Your task to perform on an android device: turn on showing notifications on the lock screen Image 0: 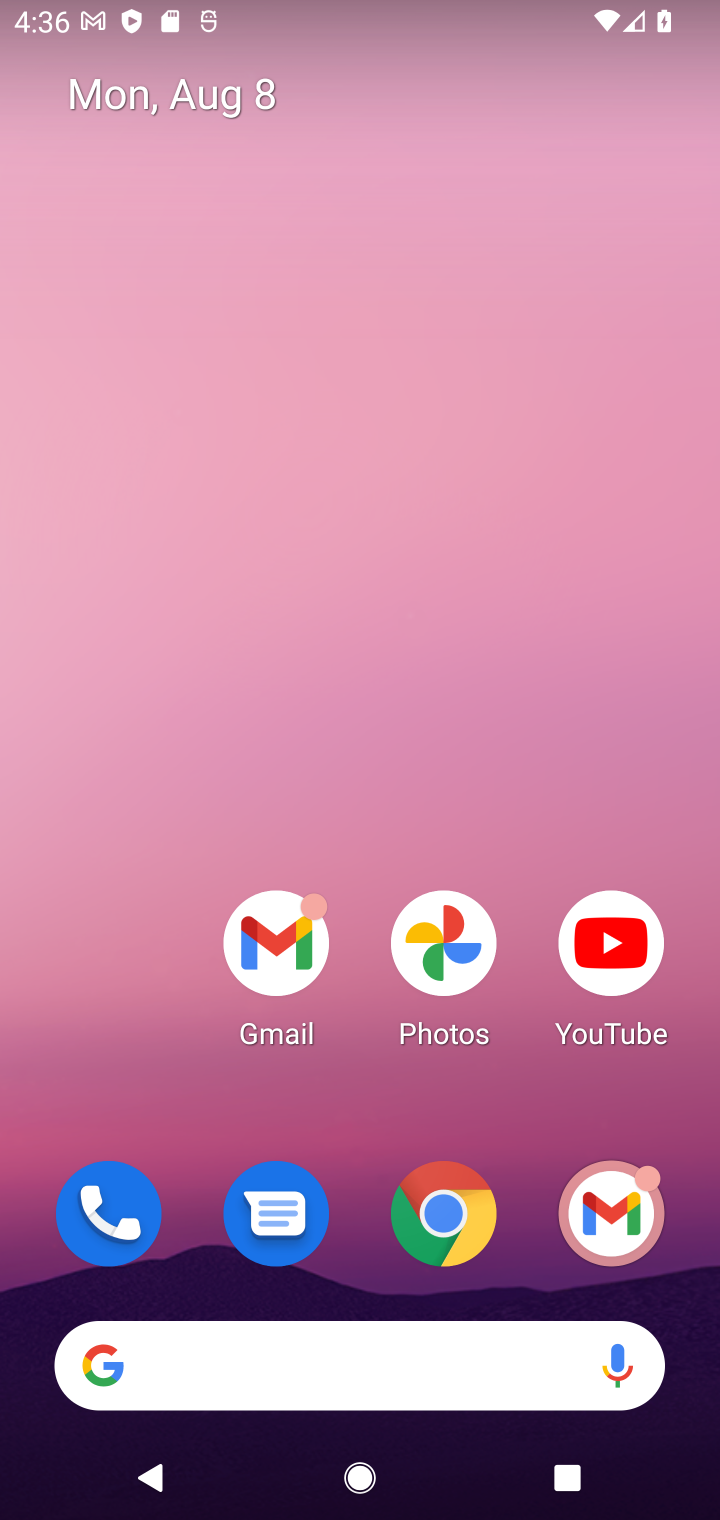
Step 0: drag from (381, 1108) to (357, 186)
Your task to perform on an android device: turn on showing notifications on the lock screen Image 1: 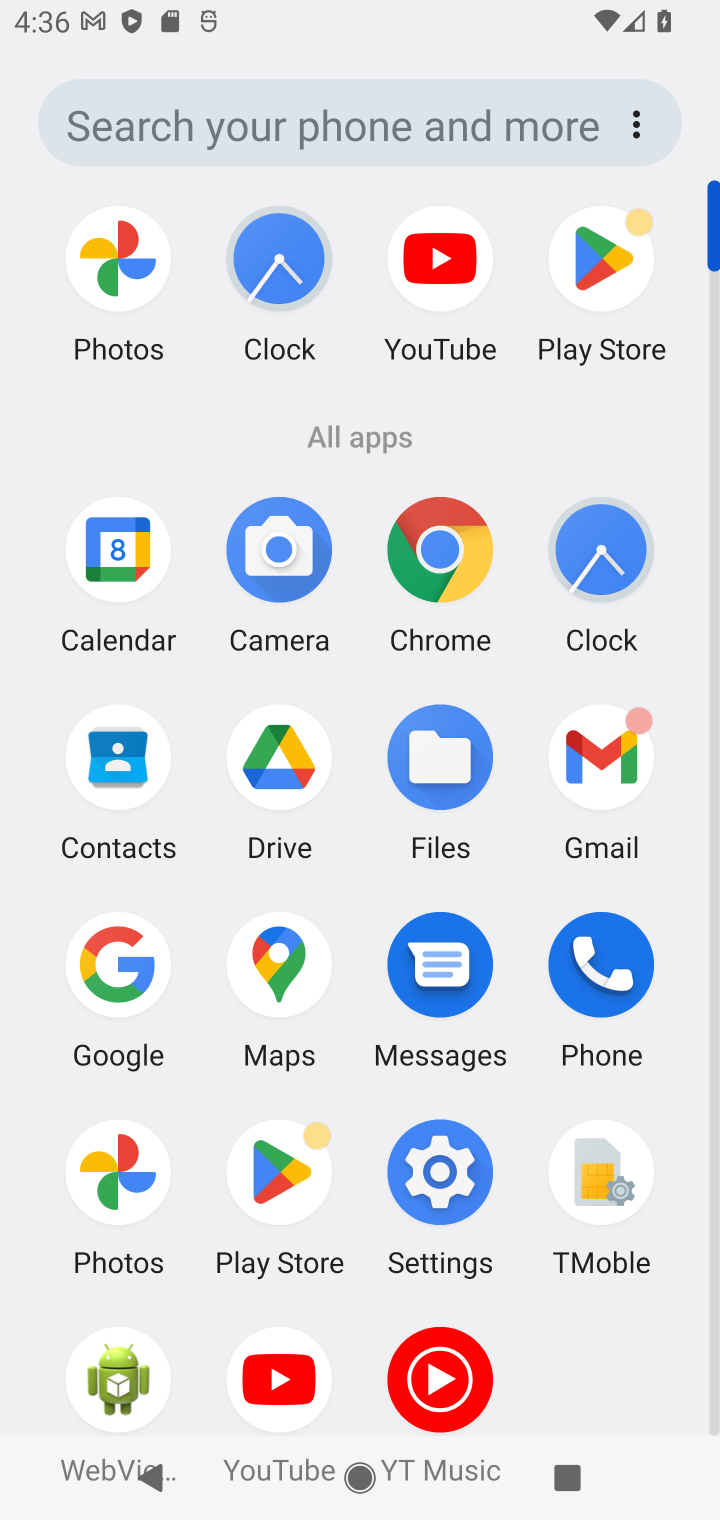
Step 1: click (438, 1171)
Your task to perform on an android device: turn on showing notifications on the lock screen Image 2: 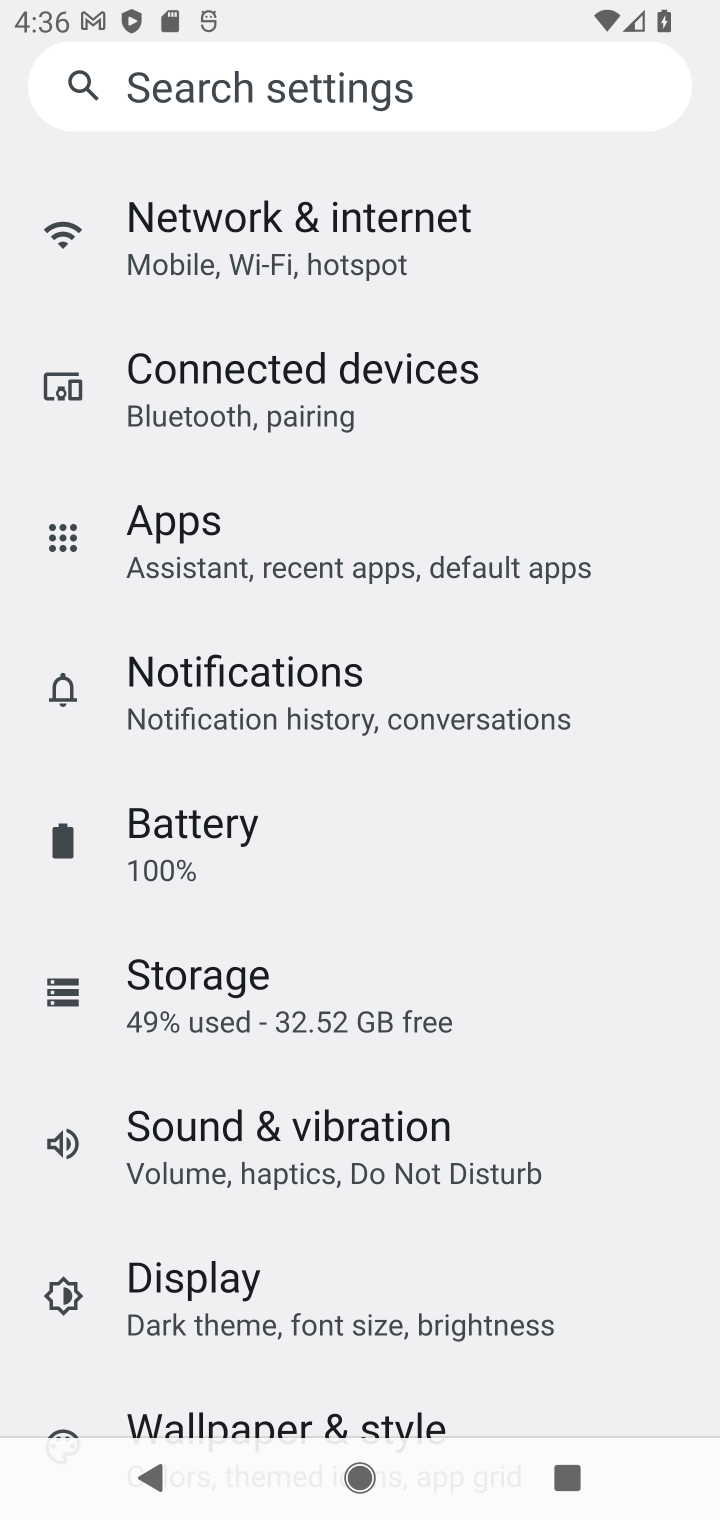
Step 2: click (391, 730)
Your task to perform on an android device: turn on showing notifications on the lock screen Image 3: 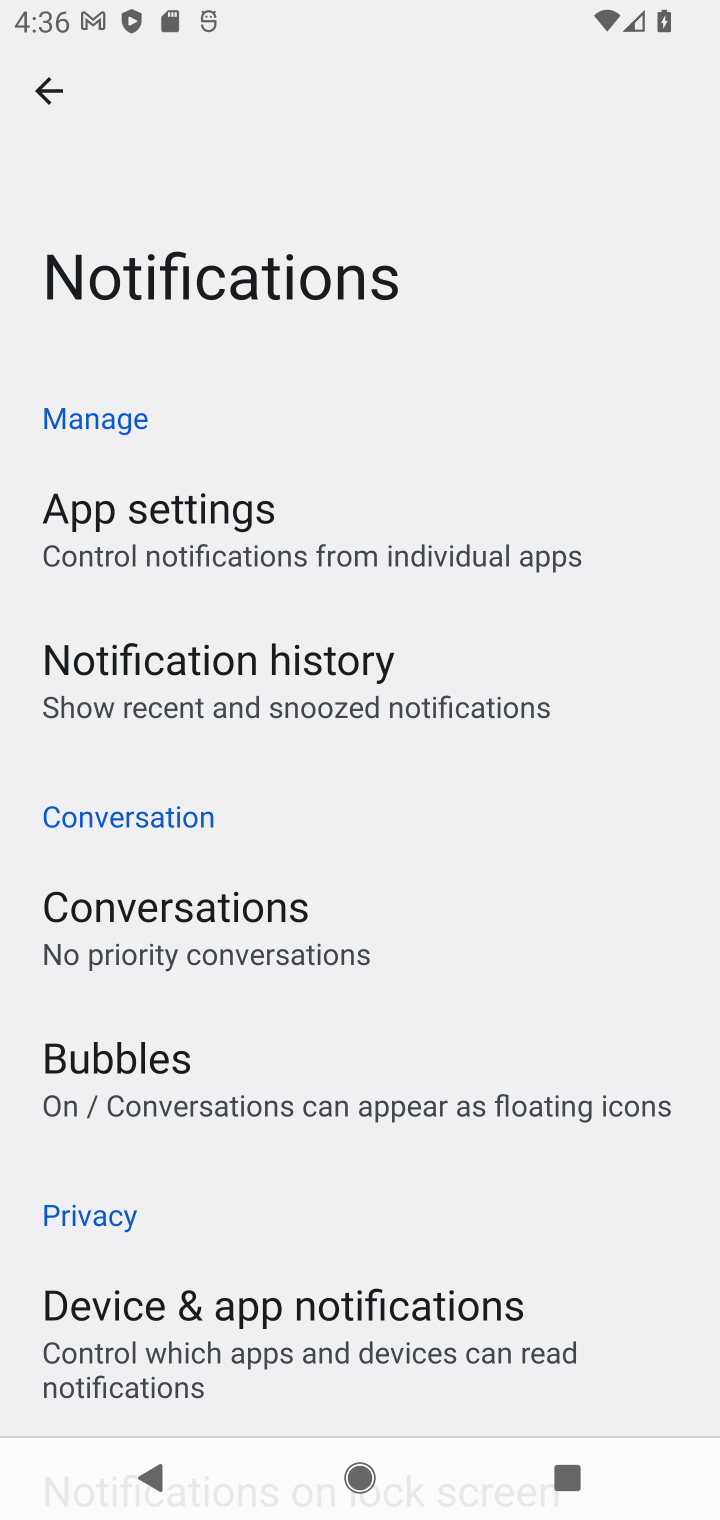
Step 3: drag from (334, 1157) to (224, 244)
Your task to perform on an android device: turn on showing notifications on the lock screen Image 4: 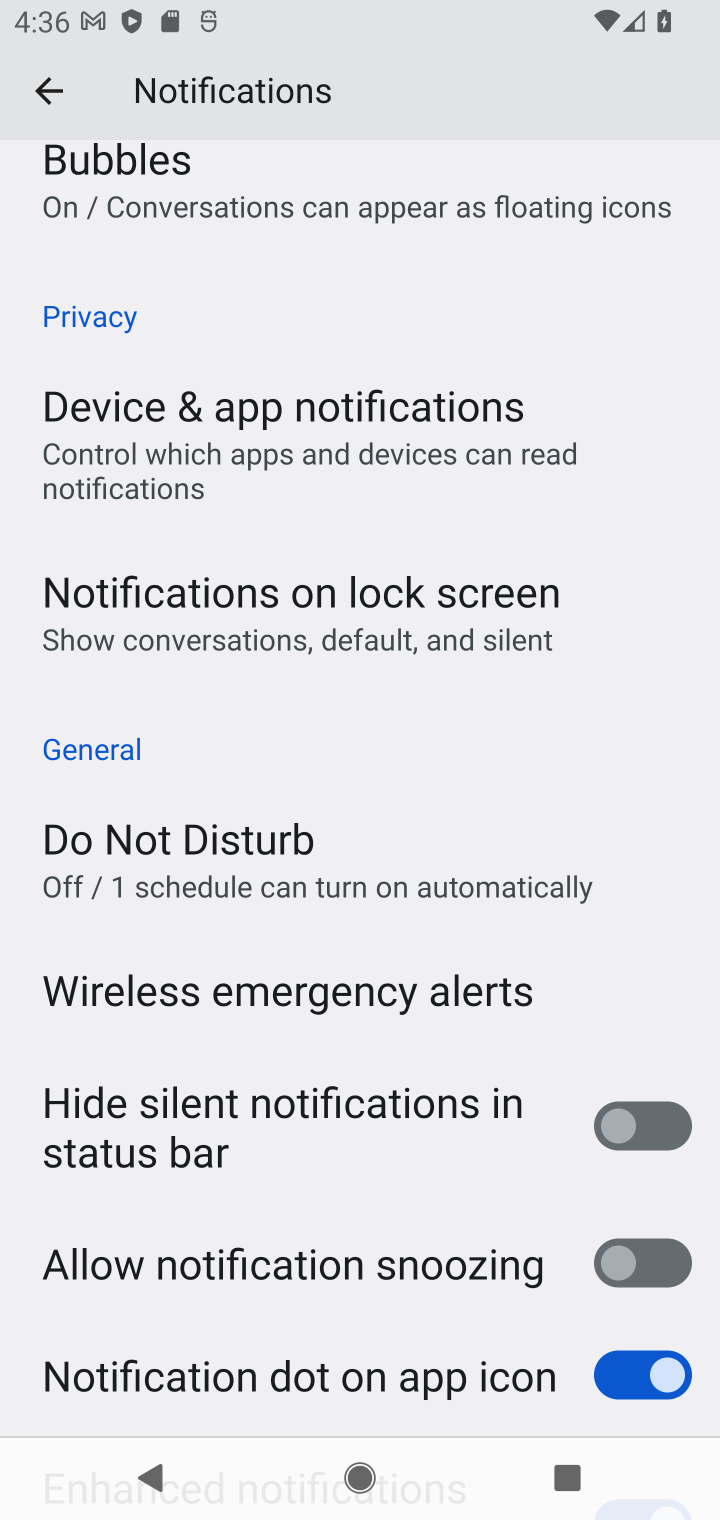
Step 4: click (170, 595)
Your task to perform on an android device: turn on showing notifications on the lock screen Image 5: 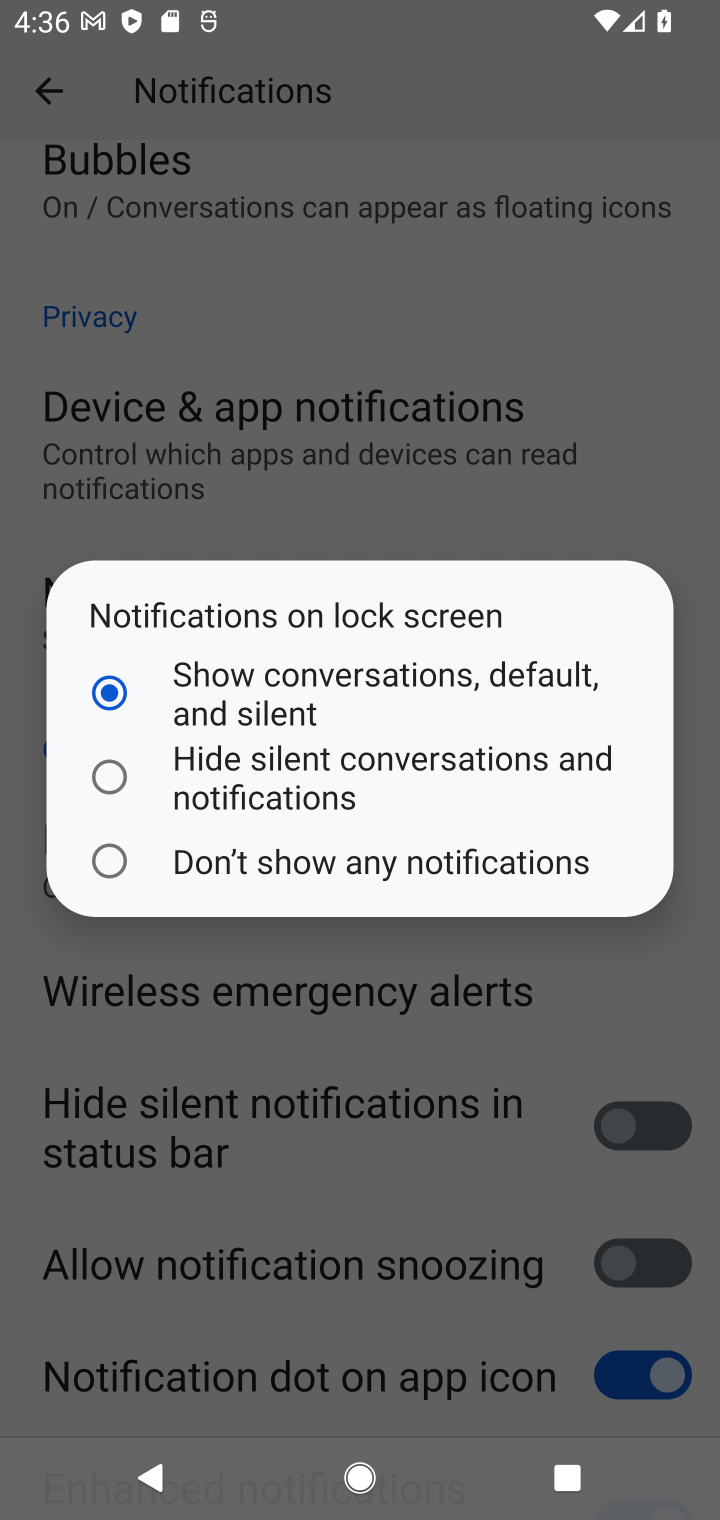
Step 5: click (227, 684)
Your task to perform on an android device: turn on showing notifications on the lock screen Image 6: 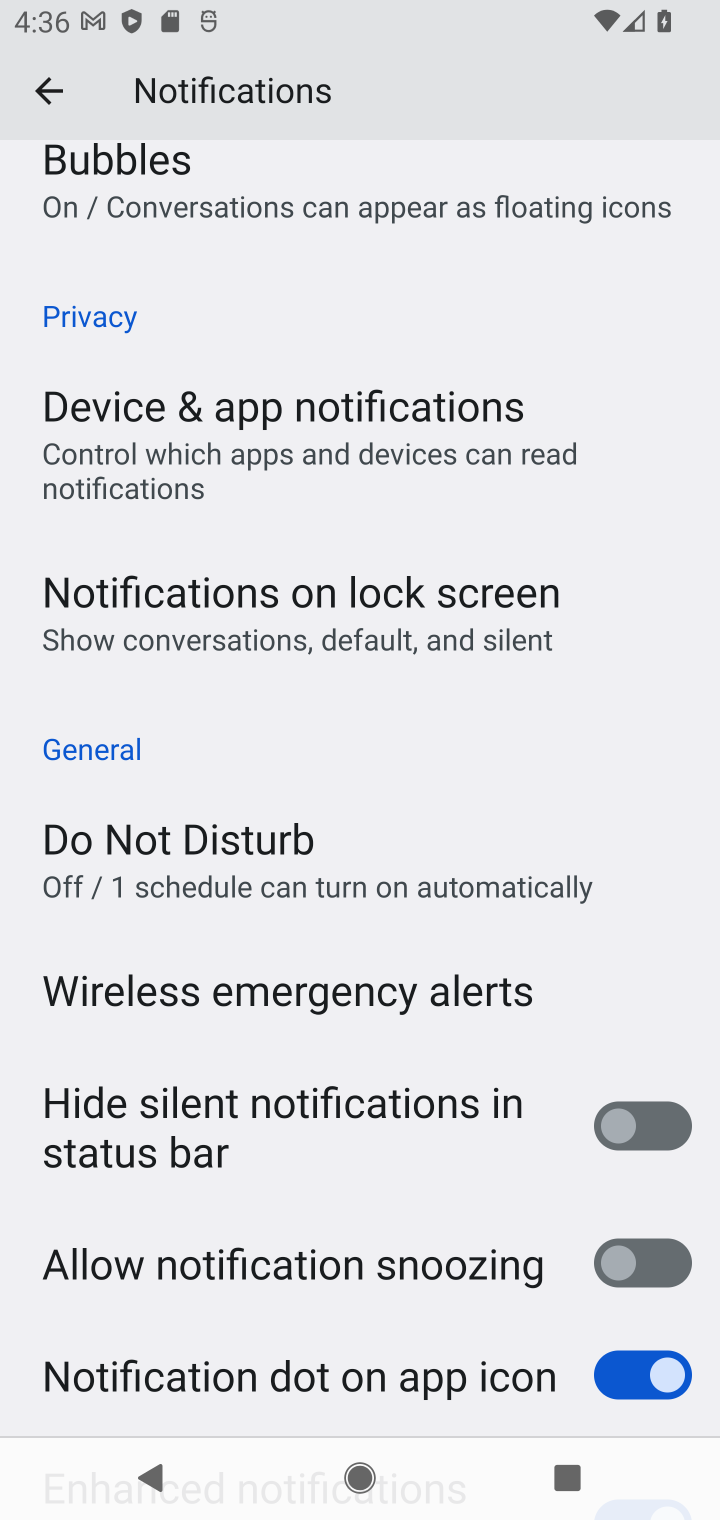
Step 6: task complete